Your task to perform on an android device: toggle sleep mode Image 0: 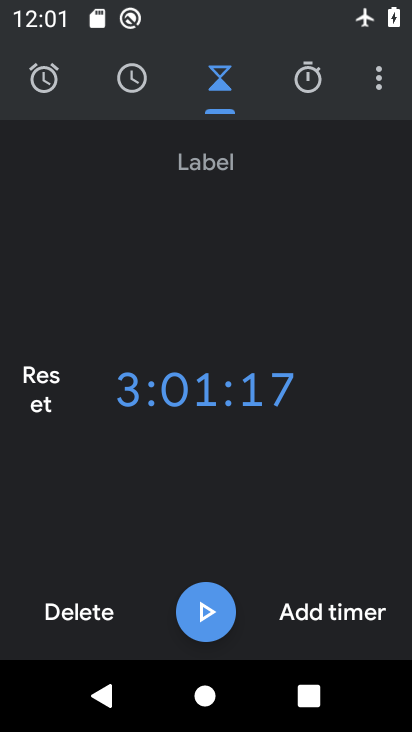
Step 0: press home button
Your task to perform on an android device: toggle sleep mode Image 1: 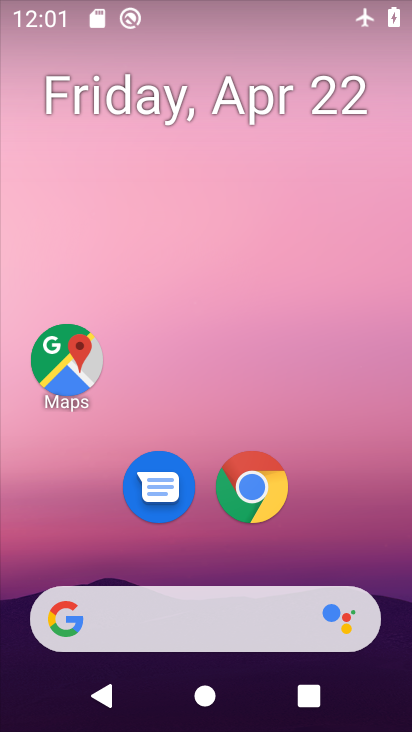
Step 1: drag from (347, 497) to (381, 187)
Your task to perform on an android device: toggle sleep mode Image 2: 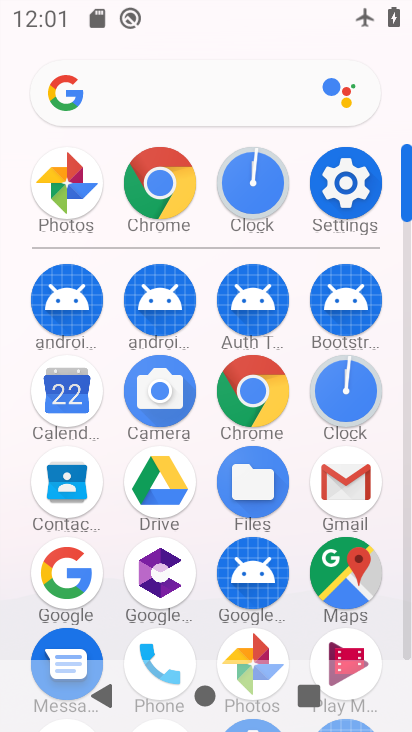
Step 2: click (330, 175)
Your task to perform on an android device: toggle sleep mode Image 3: 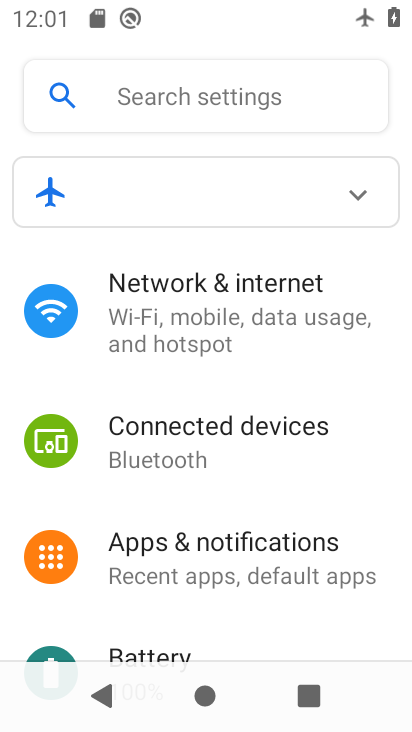
Step 3: task complete